Your task to perform on an android device: What's on my calendar tomorrow? Image 0: 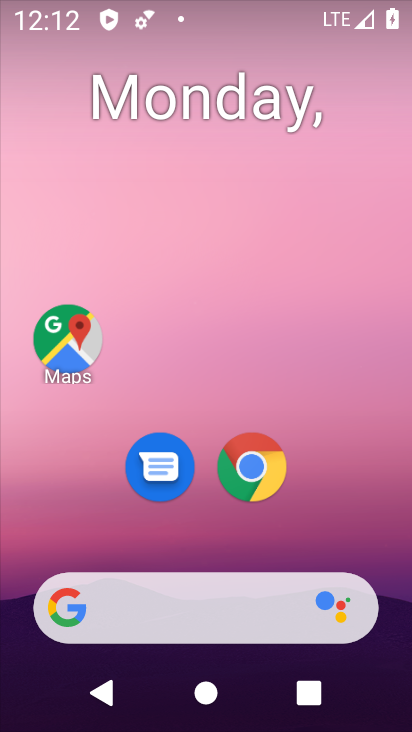
Step 0: drag from (386, 592) to (325, 49)
Your task to perform on an android device: What's on my calendar tomorrow? Image 1: 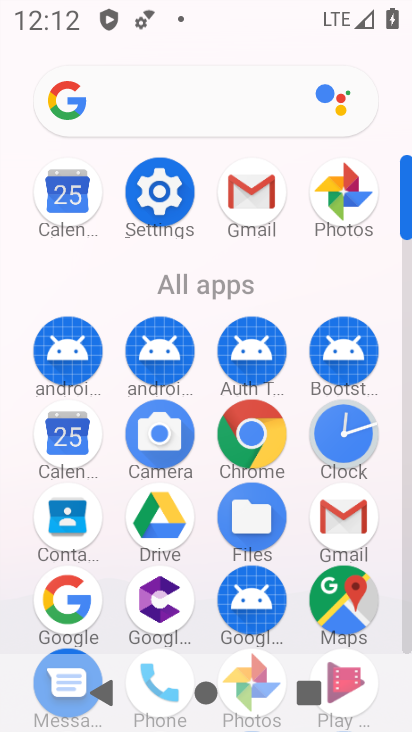
Step 1: click (405, 630)
Your task to perform on an android device: What's on my calendar tomorrow? Image 2: 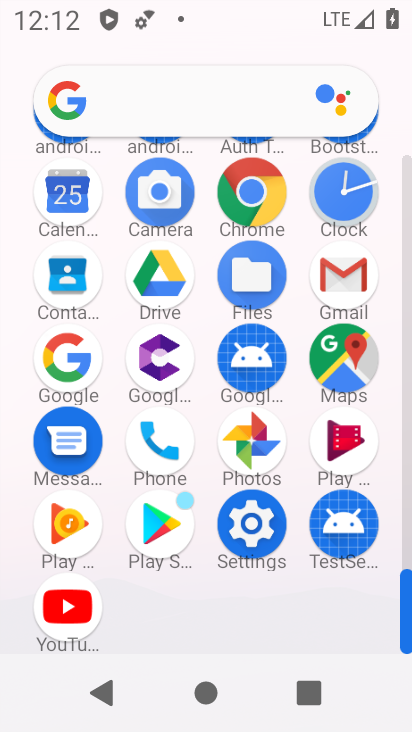
Step 2: click (61, 191)
Your task to perform on an android device: What's on my calendar tomorrow? Image 3: 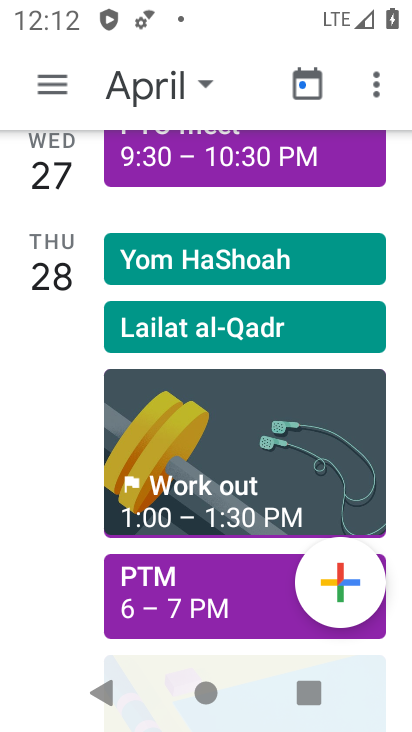
Step 3: click (194, 87)
Your task to perform on an android device: What's on my calendar tomorrow? Image 4: 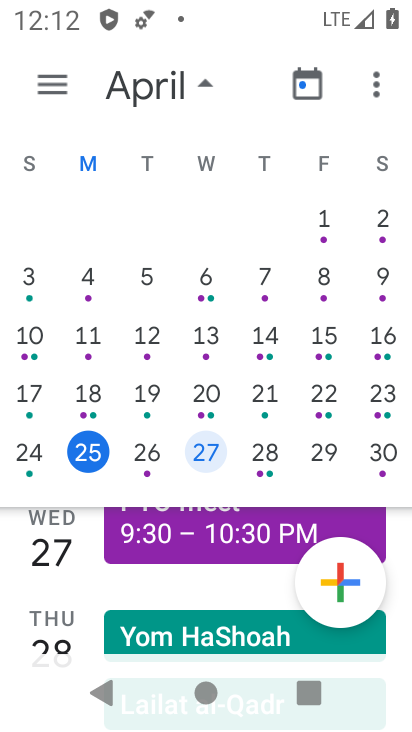
Step 4: click (152, 462)
Your task to perform on an android device: What's on my calendar tomorrow? Image 5: 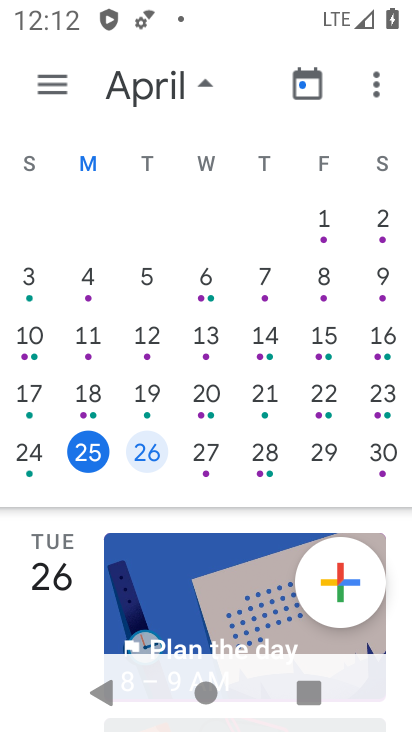
Step 5: drag from (142, 554) to (154, 278)
Your task to perform on an android device: What's on my calendar tomorrow? Image 6: 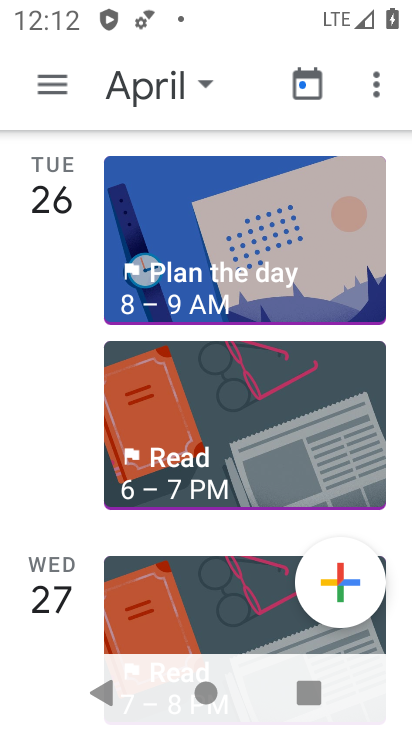
Step 6: click (41, 82)
Your task to perform on an android device: What's on my calendar tomorrow? Image 7: 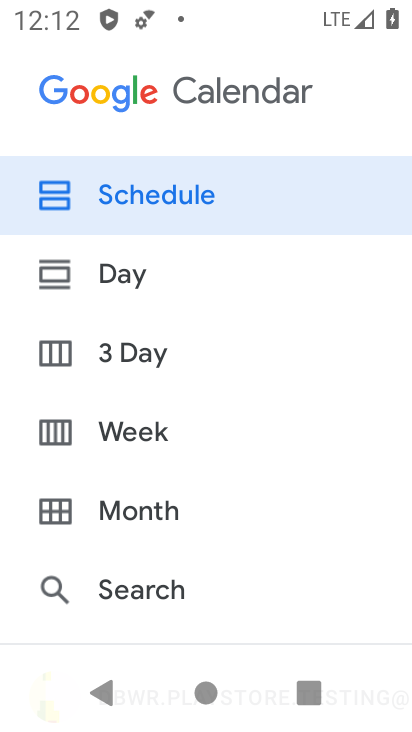
Step 7: click (126, 285)
Your task to perform on an android device: What's on my calendar tomorrow? Image 8: 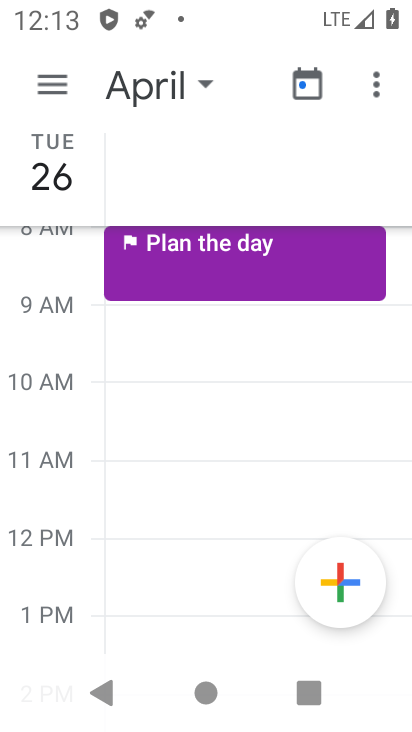
Step 8: task complete